Your task to perform on an android device: Open accessibility settings Image 0: 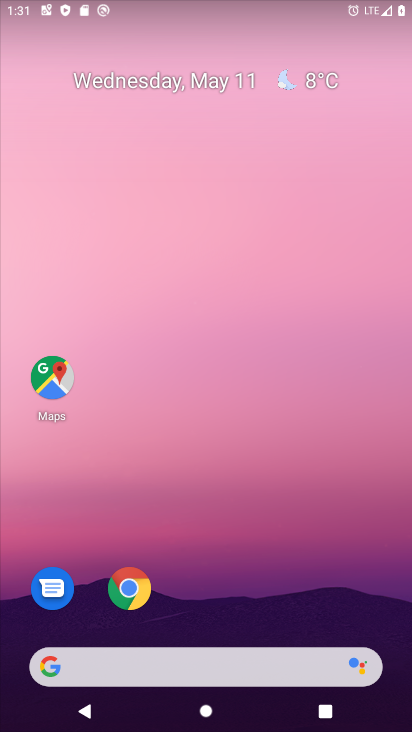
Step 0: drag from (268, 553) to (325, 1)
Your task to perform on an android device: Open accessibility settings Image 1: 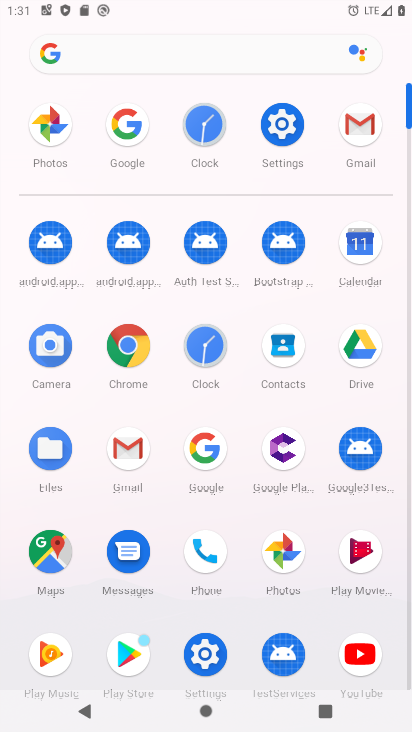
Step 1: click (280, 125)
Your task to perform on an android device: Open accessibility settings Image 2: 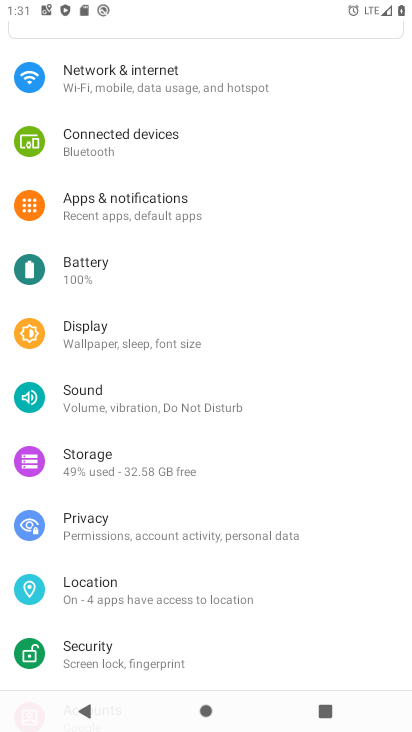
Step 2: drag from (307, 600) to (309, 276)
Your task to perform on an android device: Open accessibility settings Image 3: 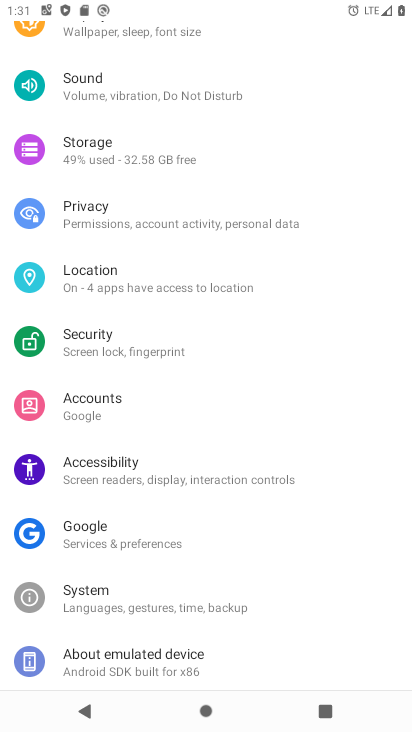
Step 3: click (108, 474)
Your task to perform on an android device: Open accessibility settings Image 4: 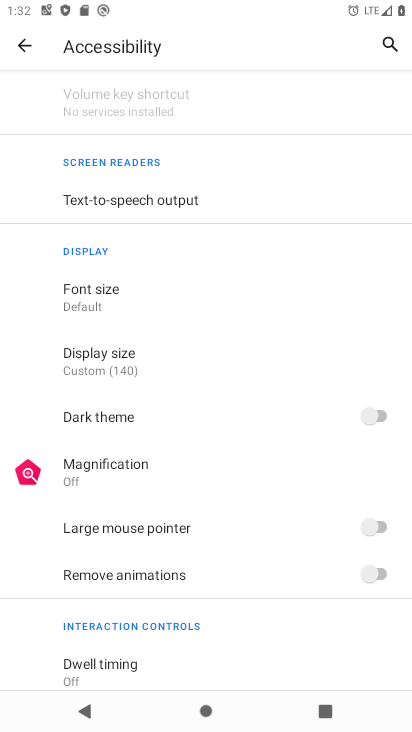
Step 4: task complete